Your task to perform on an android device: Open Amazon Image 0: 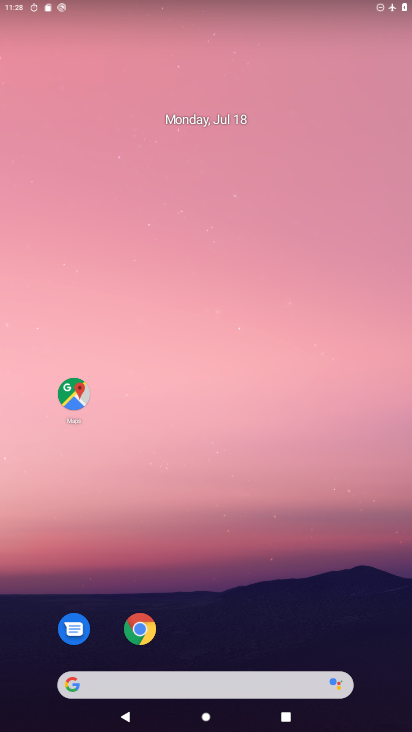
Step 0: drag from (333, 587) to (191, 65)
Your task to perform on an android device: Open Amazon Image 1: 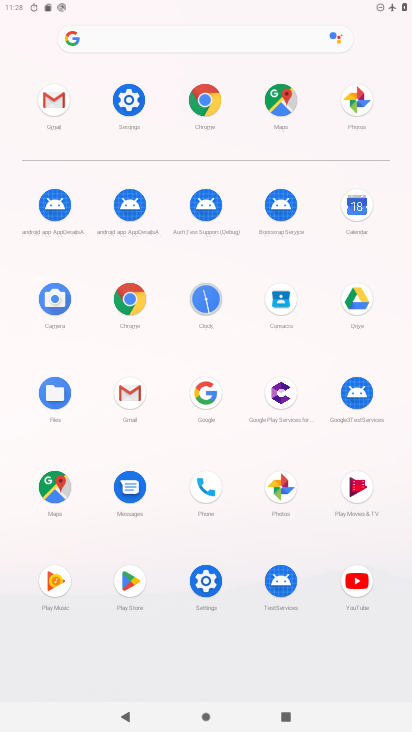
Step 1: click (197, 98)
Your task to perform on an android device: Open Amazon Image 2: 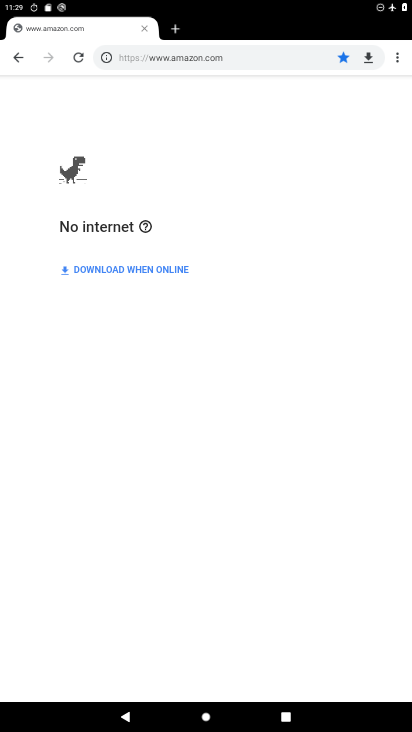
Step 2: task complete